Your task to perform on an android device: Open accessibility settings Image 0: 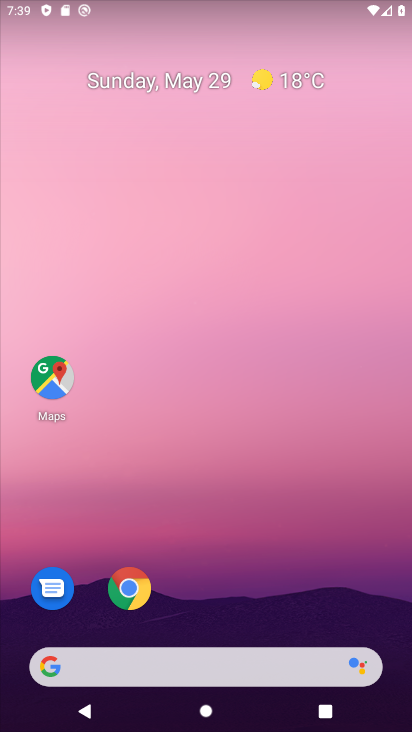
Step 0: drag from (233, 572) to (411, 184)
Your task to perform on an android device: Open accessibility settings Image 1: 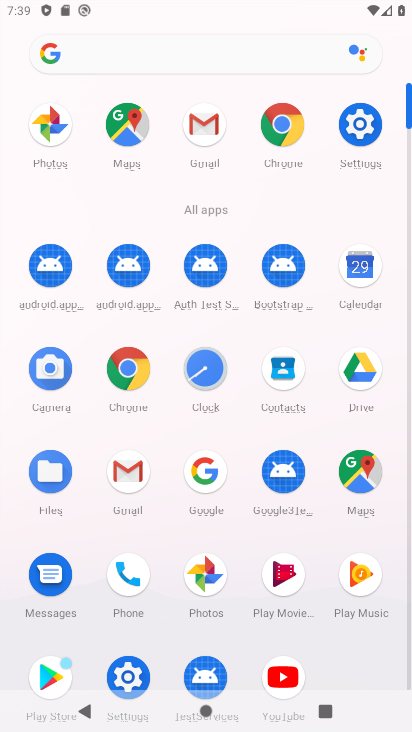
Step 1: click (362, 122)
Your task to perform on an android device: Open accessibility settings Image 2: 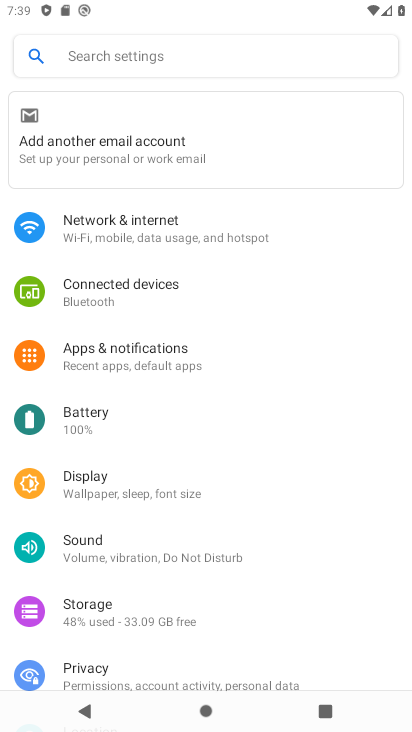
Step 2: drag from (189, 528) to (269, 185)
Your task to perform on an android device: Open accessibility settings Image 3: 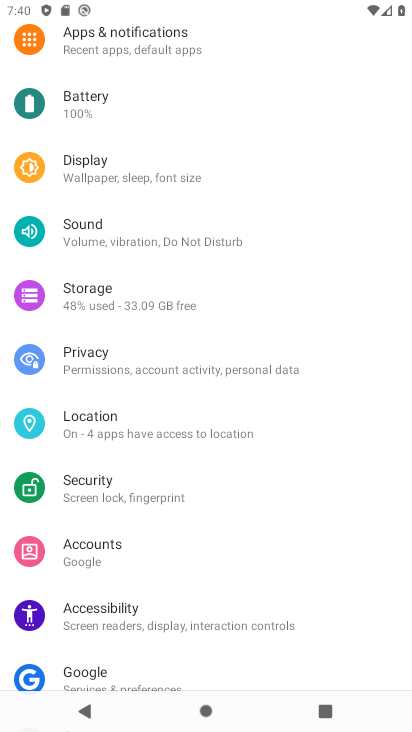
Step 3: click (119, 609)
Your task to perform on an android device: Open accessibility settings Image 4: 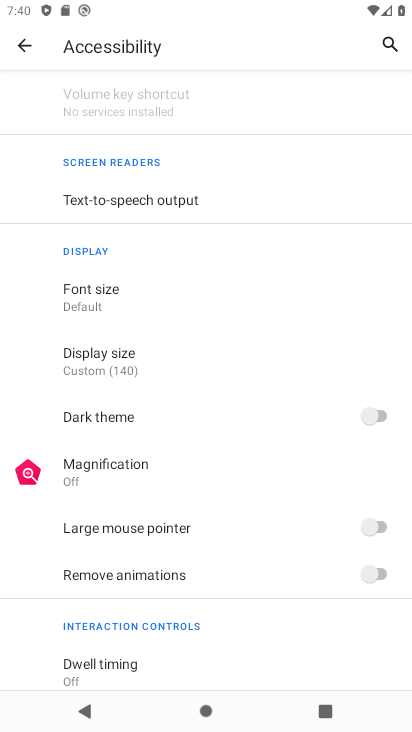
Step 4: task complete